Your task to perform on an android device: turn vacation reply on in the gmail app Image 0: 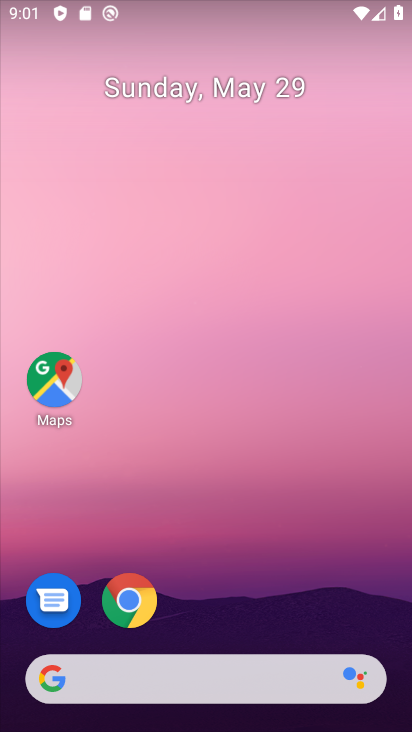
Step 0: drag from (181, 611) to (150, 13)
Your task to perform on an android device: turn vacation reply on in the gmail app Image 1: 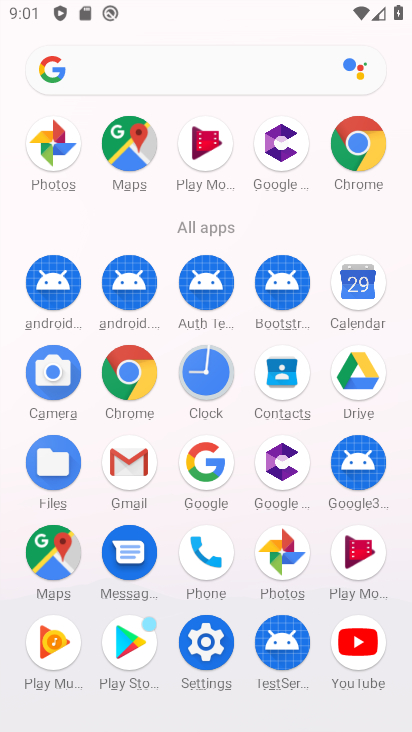
Step 1: click (112, 468)
Your task to perform on an android device: turn vacation reply on in the gmail app Image 2: 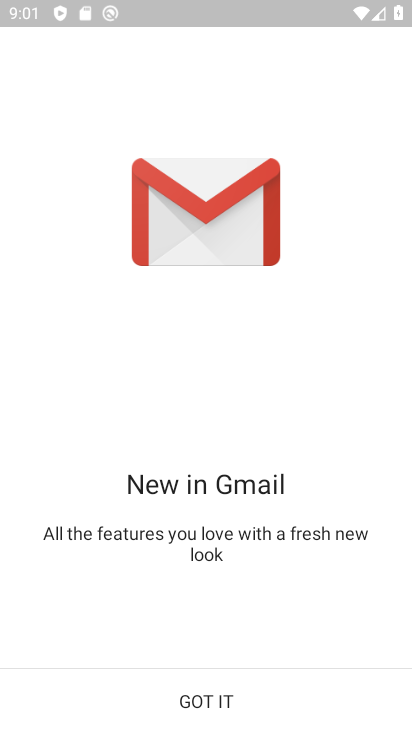
Step 2: click (256, 694)
Your task to perform on an android device: turn vacation reply on in the gmail app Image 3: 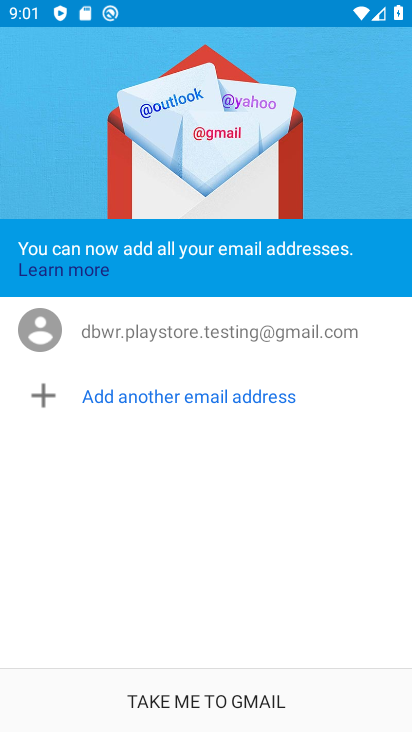
Step 3: click (256, 694)
Your task to perform on an android device: turn vacation reply on in the gmail app Image 4: 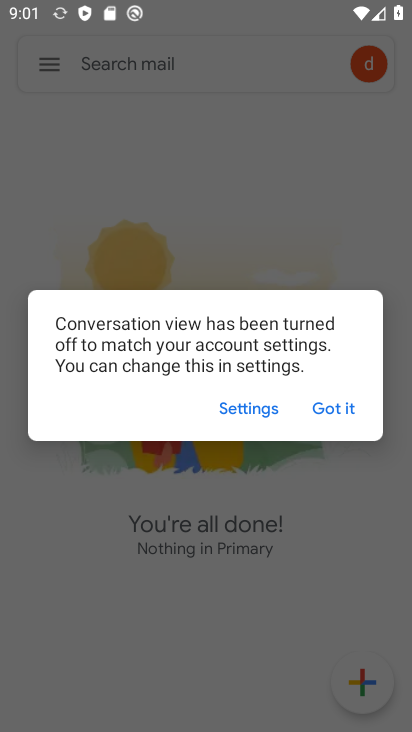
Step 4: click (325, 407)
Your task to perform on an android device: turn vacation reply on in the gmail app Image 5: 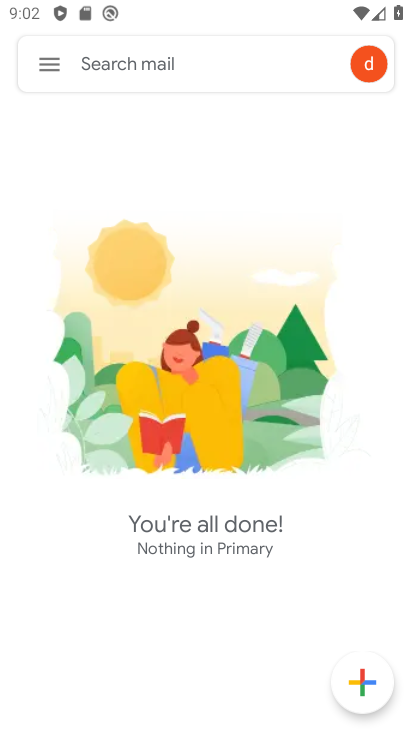
Step 5: click (42, 66)
Your task to perform on an android device: turn vacation reply on in the gmail app Image 6: 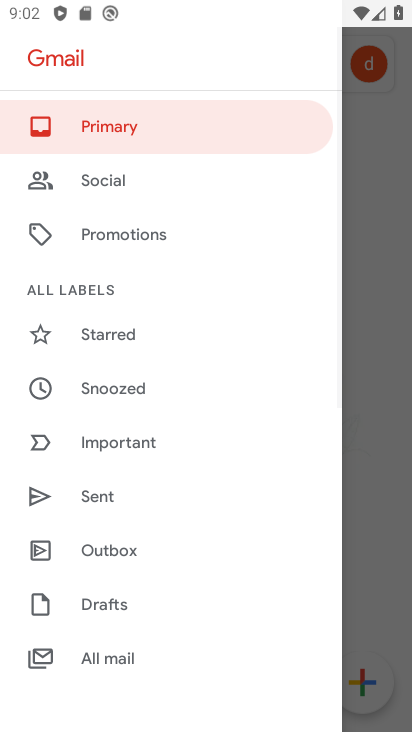
Step 6: drag from (198, 644) to (205, 162)
Your task to perform on an android device: turn vacation reply on in the gmail app Image 7: 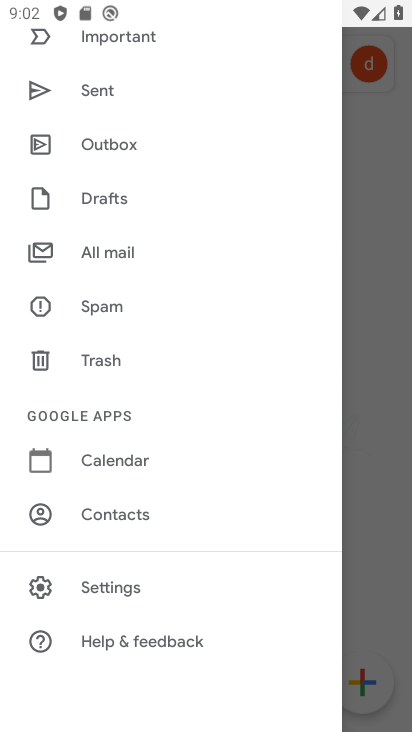
Step 7: click (122, 590)
Your task to perform on an android device: turn vacation reply on in the gmail app Image 8: 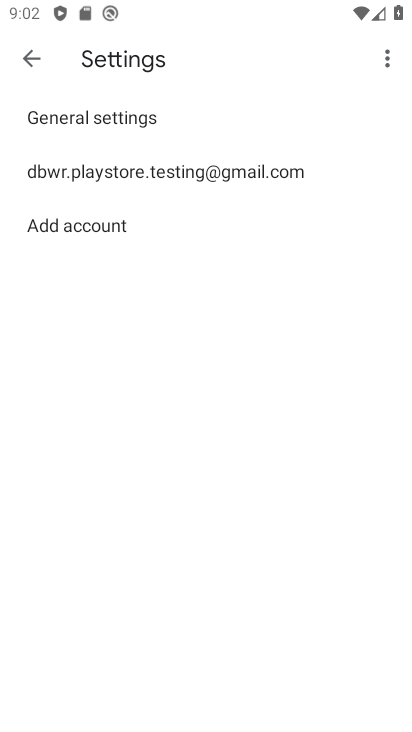
Step 8: click (135, 170)
Your task to perform on an android device: turn vacation reply on in the gmail app Image 9: 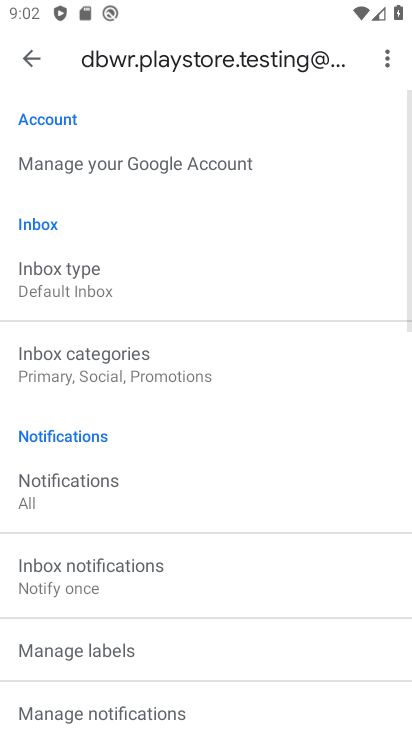
Step 9: drag from (224, 609) to (260, 146)
Your task to perform on an android device: turn vacation reply on in the gmail app Image 10: 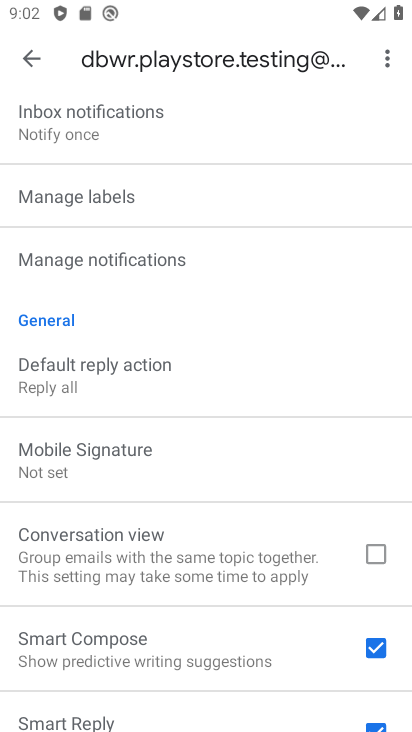
Step 10: drag from (150, 501) to (186, 85)
Your task to perform on an android device: turn vacation reply on in the gmail app Image 11: 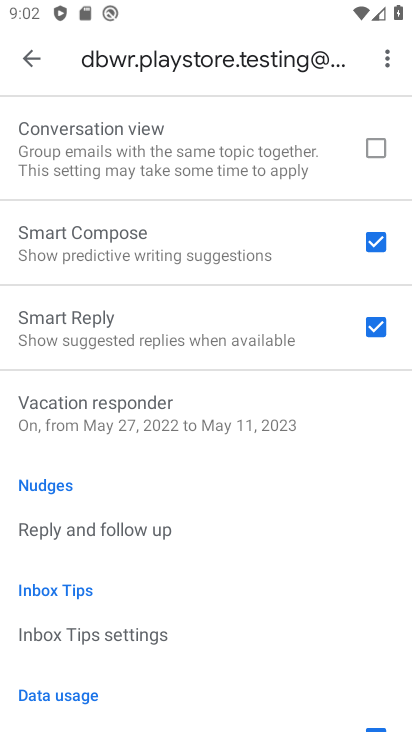
Step 11: click (117, 405)
Your task to perform on an android device: turn vacation reply on in the gmail app Image 12: 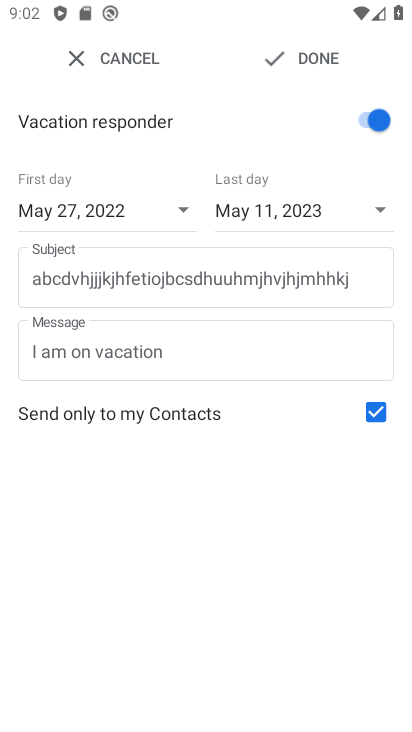
Step 12: click (321, 50)
Your task to perform on an android device: turn vacation reply on in the gmail app Image 13: 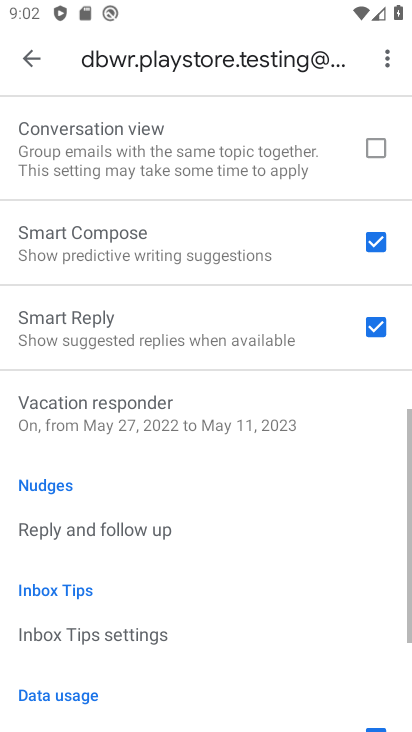
Step 13: task complete